Your task to perform on an android device: turn off location history Image 0: 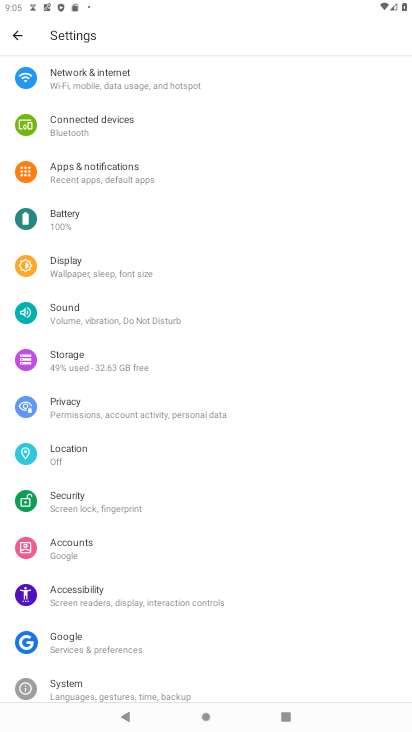
Step 0: click (62, 449)
Your task to perform on an android device: turn off location history Image 1: 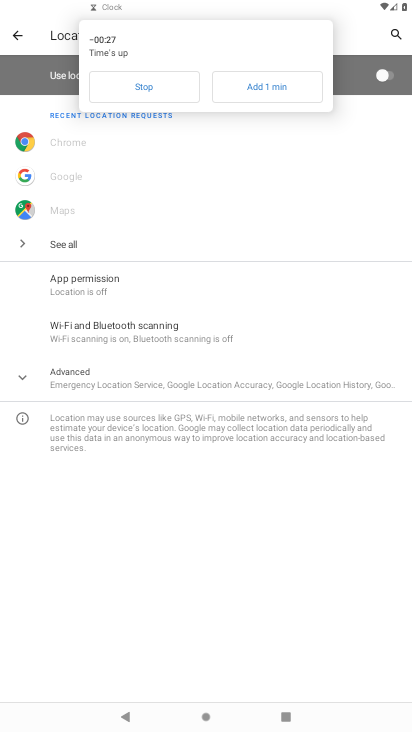
Step 1: task complete